Your task to perform on an android device: uninstall "Instagram" Image 0: 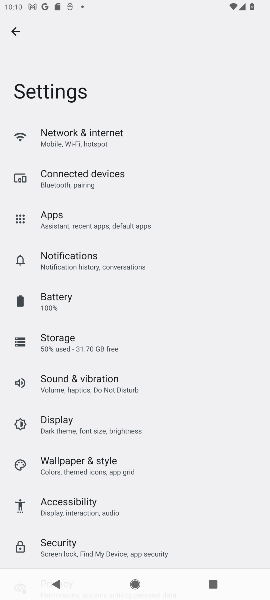
Step 0: press home button
Your task to perform on an android device: uninstall "Instagram" Image 1: 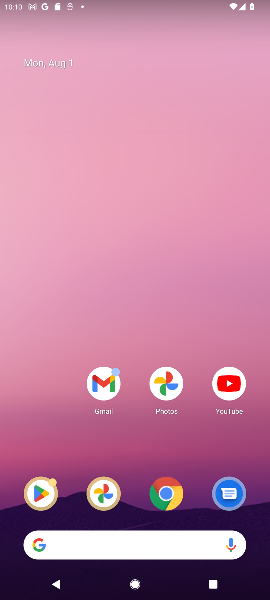
Step 1: click (54, 500)
Your task to perform on an android device: uninstall "Instagram" Image 2: 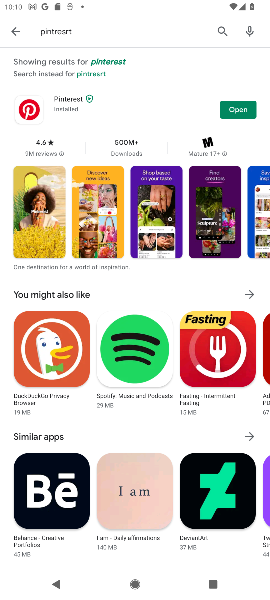
Step 2: click (227, 33)
Your task to perform on an android device: uninstall "Instagram" Image 3: 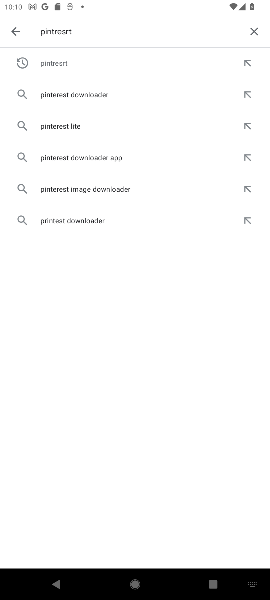
Step 3: click (253, 33)
Your task to perform on an android device: uninstall "Instagram" Image 4: 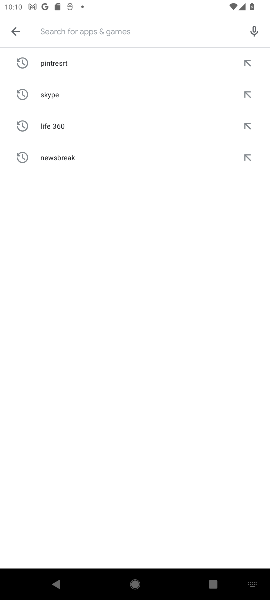
Step 4: type "instagram"
Your task to perform on an android device: uninstall "Instagram" Image 5: 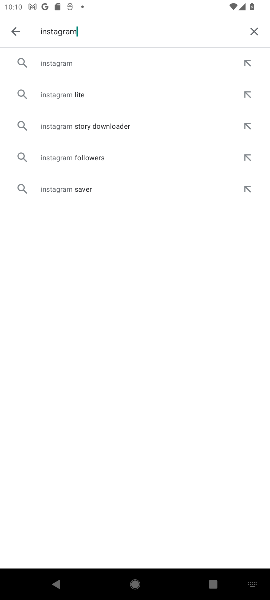
Step 5: click (114, 66)
Your task to perform on an android device: uninstall "Instagram" Image 6: 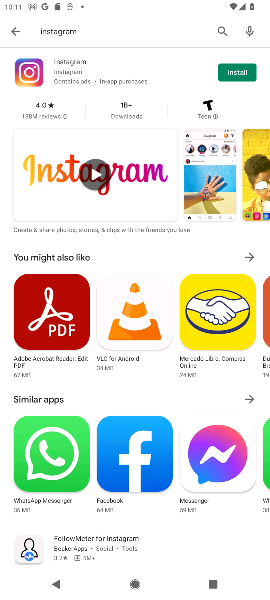
Step 6: click (246, 73)
Your task to perform on an android device: uninstall "Instagram" Image 7: 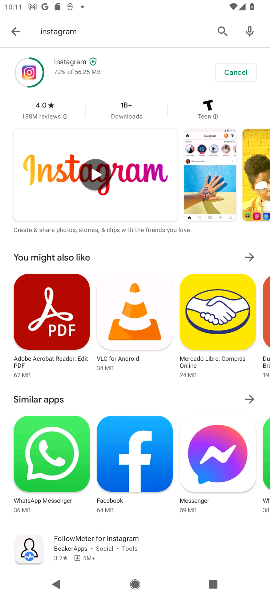
Step 7: task complete